Your task to perform on an android device: Open Yahoo.com Image 0: 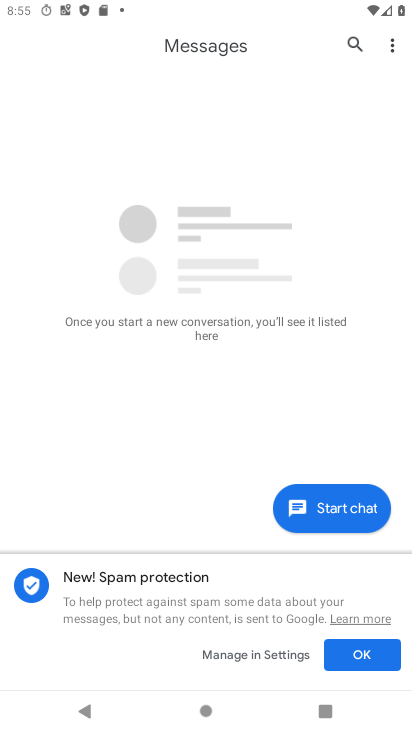
Step 0: press home button
Your task to perform on an android device: Open Yahoo.com Image 1: 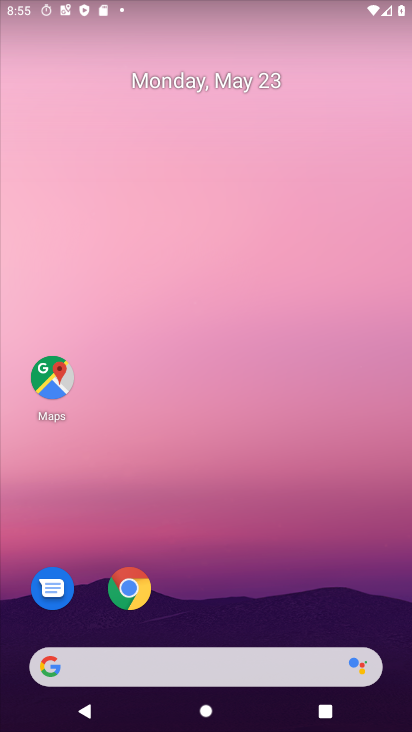
Step 1: click (128, 585)
Your task to perform on an android device: Open Yahoo.com Image 2: 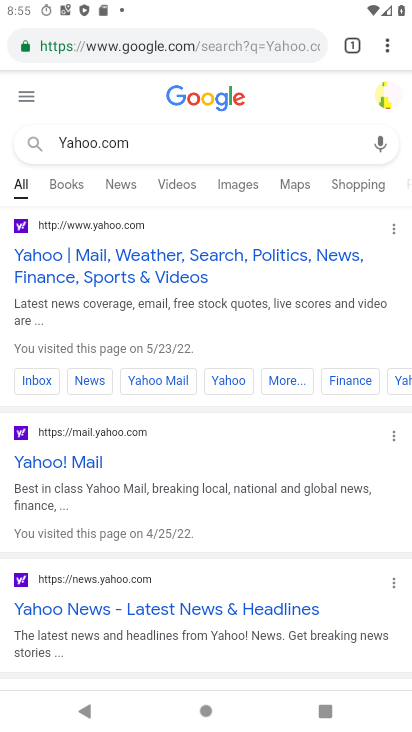
Step 2: click (321, 40)
Your task to perform on an android device: Open Yahoo.com Image 3: 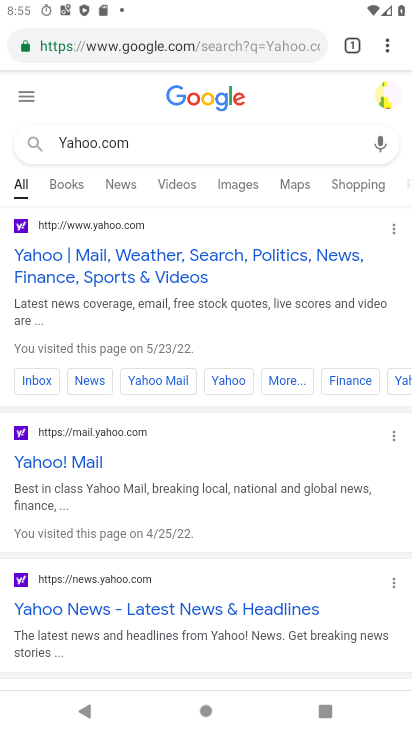
Step 3: task complete